Your task to perform on an android device: turn off smart reply in the gmail app Image 0: 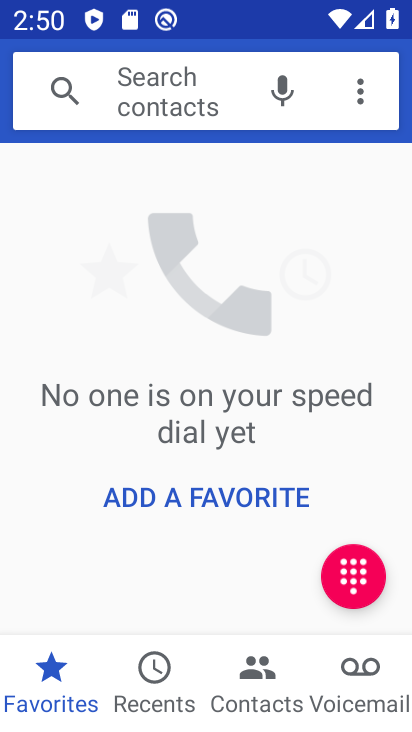
Step 0: press home button
Your task to perform on an android device: turn off smart reply in the gmail app Image 1: 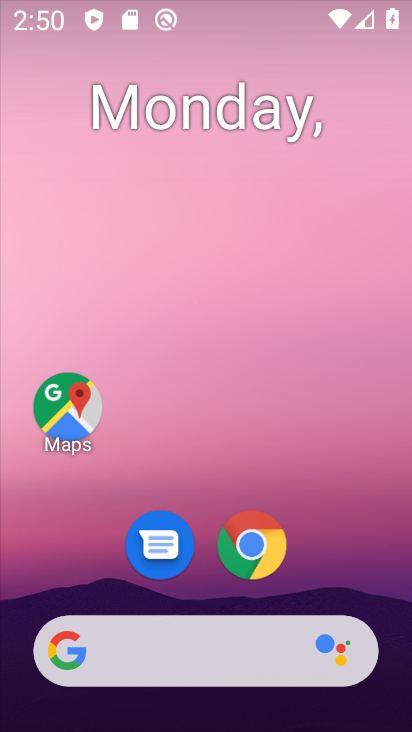
Step 1: drag from (168, 549) to (255, 40)
Your task to perform on an android device: turn off smart reply in the gmail app Image 2: 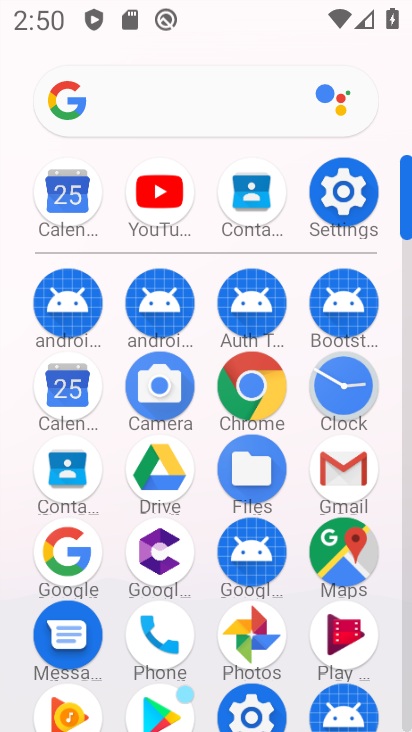
Step 2: click (345, 463)
Your task to perform on an android device: turn off smart reply in the gmail app Image 3: 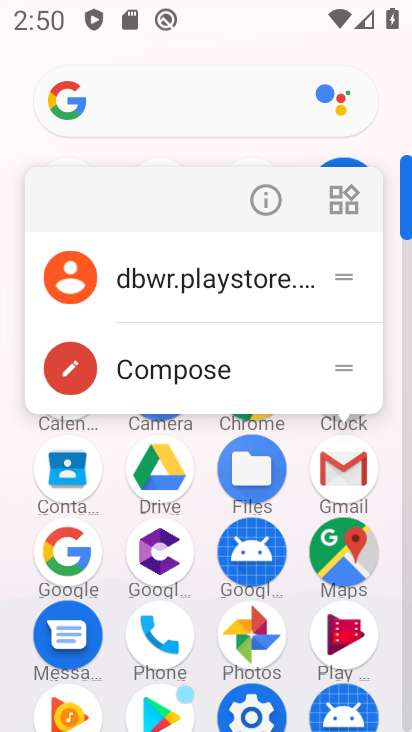
Step 3: click (339, 470)
Your task to perform on an android device: turn off smart reply in the gmail app Image 4: 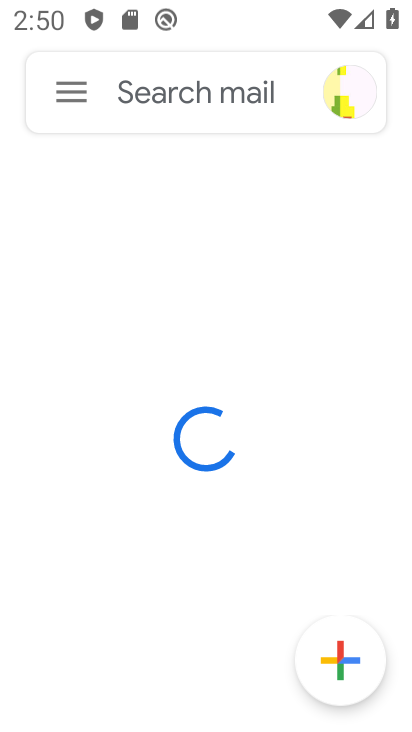
Step 4: click (73, 86)
Your task to perform on an android device: turn off smart reply in the gmail app Image 5: 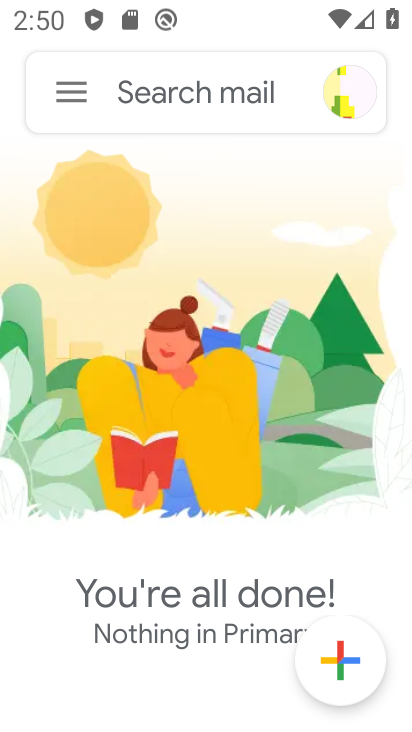
Step 5: drag from (71, 96) to (228, 444)
Your task to perform on an android device: turn off smart reply in the gmail app Image 6: 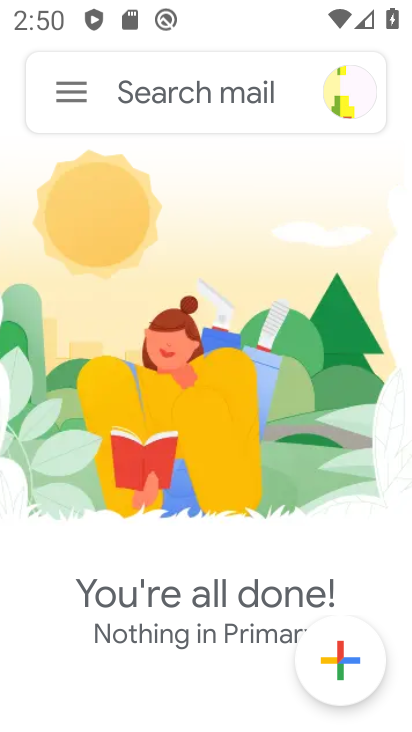
Step 6: click (71, 73)
Your task to perform on an android device: turn off smart reply in the gmail app Image 7: 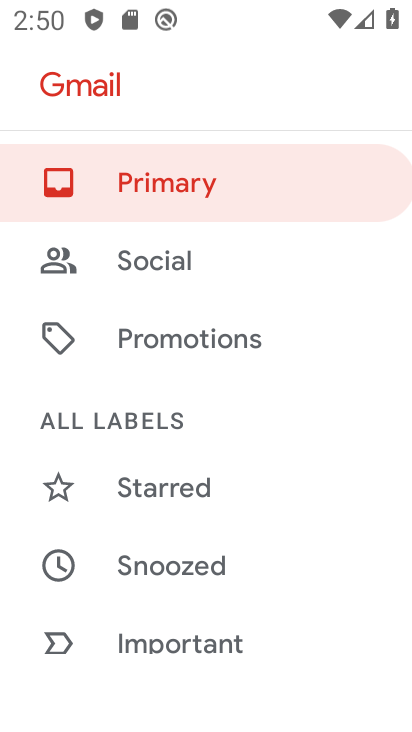
Step 7: drag from (199, 587) to (322, 70)
Your task to perform on an android device: turn off smart reply in the gmail app Image 8: 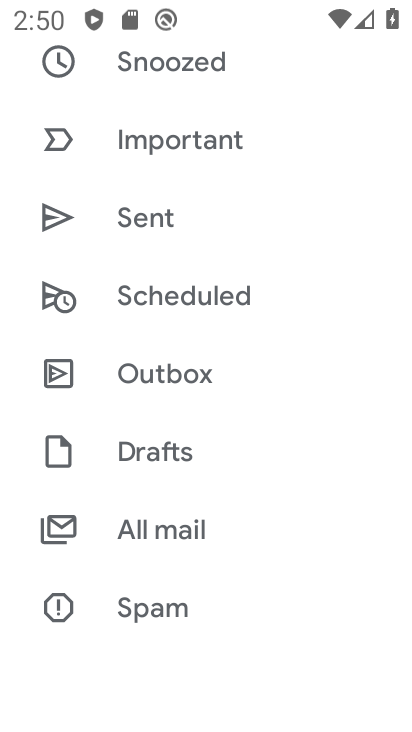
Step 8: drag from (218, 556) to (317, 33)
Your task to perform on an android device: turn off smart reply in the gmail app Image 9: 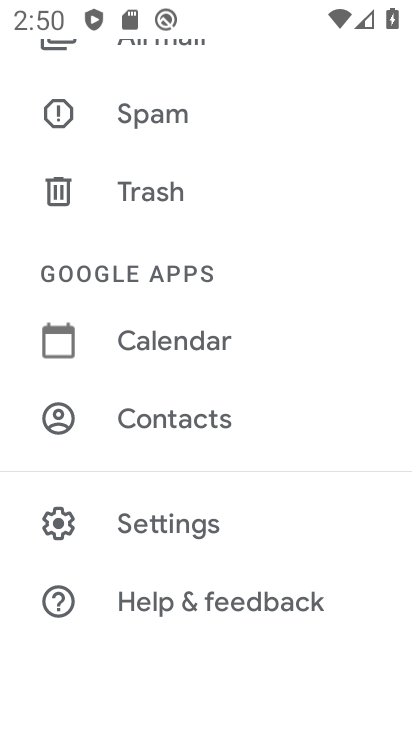
Step 9: click (200, 520)
Your task to perform on an android device: turn off smart reply in the gmail app Image 10: 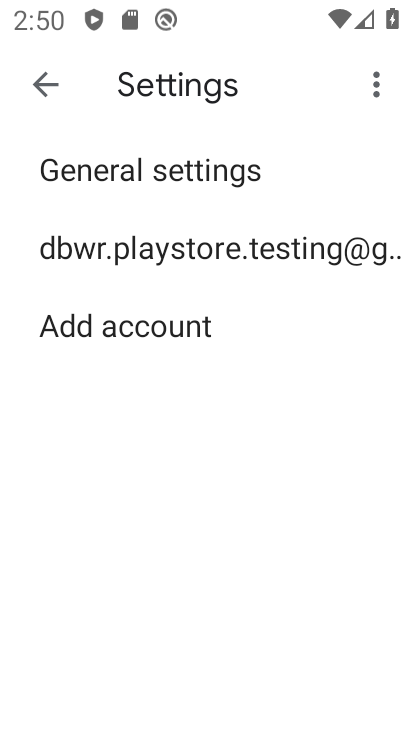
Step 10: click (205, 246)
Your task to perform on an android device: turn off smart reply in the gmail app Image 11: 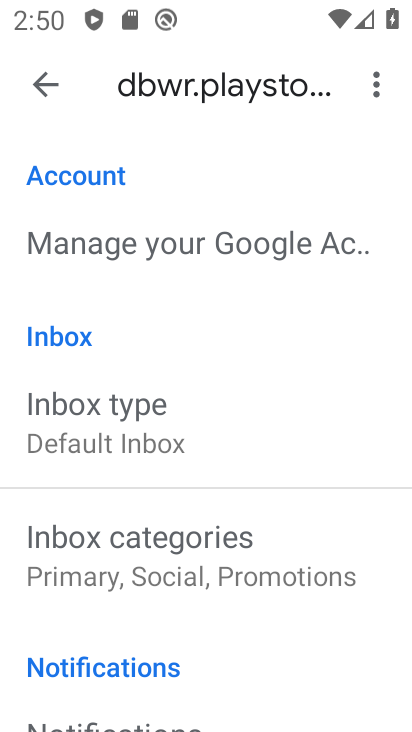
Step 11: drag from (148, 704) to (273, 120)
Your task to perform on an android device: turn off smart reply in the gmail app Image 12: 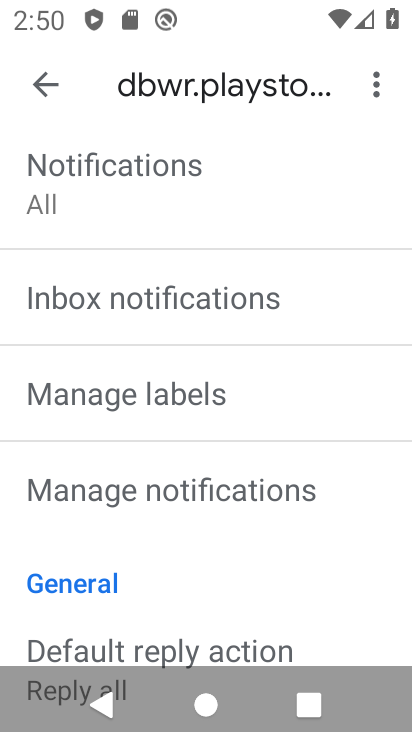
Step 12: drag from (172, 579) to (290, 66)
Your task to perform on an android device: turn off smart reply in the gmail app Image 13: 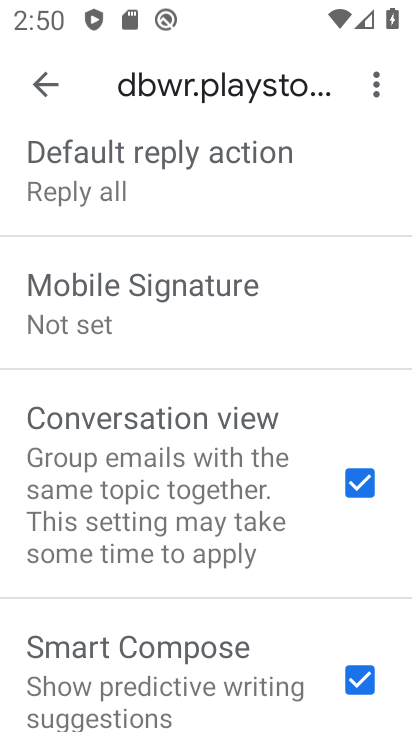
Step 13: drag from (232, 627) to (320, 114)
Your task to perform on an android device: turn off smart reply in the gmail app Image 14: 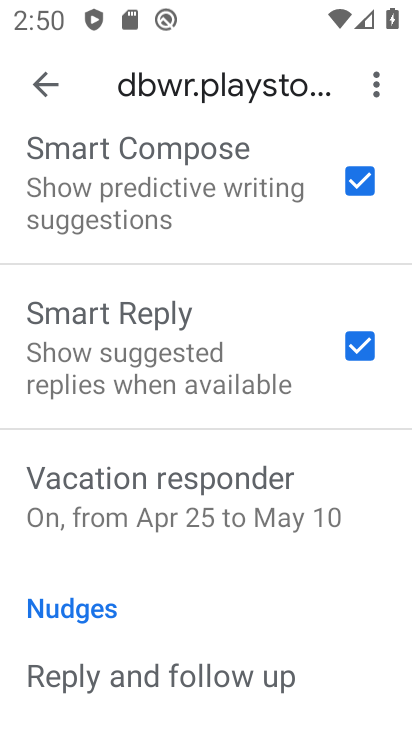
Step 14: click (353, 338)
Your task to perform on an android device: turn off smart reply in the gmail app Image 15: 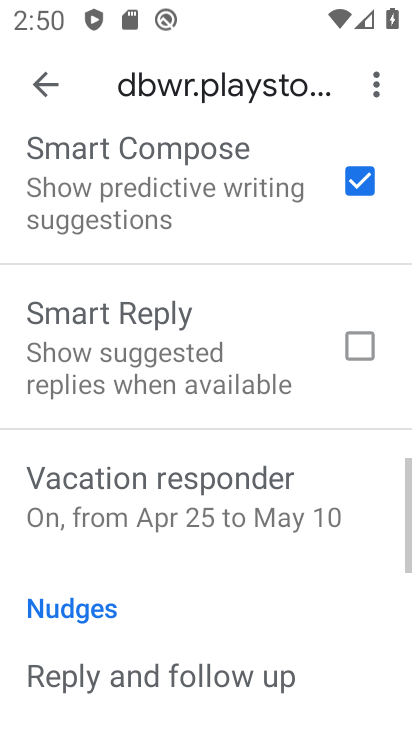
Step 15: task complete